Your task to perform on an android device: Open the calendar and show me this week's events? Image 0: 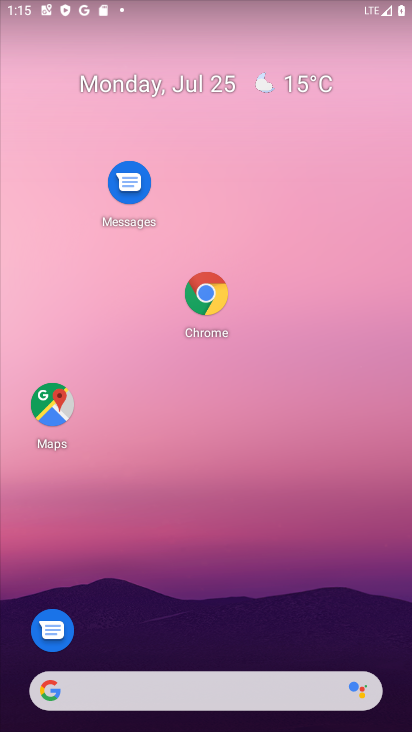
Step 0: drag from (296, 571) to (245, 0)
Your task to perform on an android device: Open the calendar and show me this week's events? Image 1: 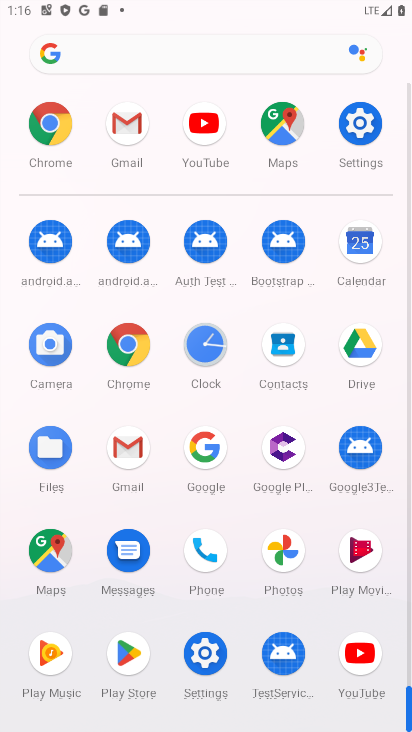
Step 1: click (364, 234)
Your task to perform on an android device: Open the calendar and show me this week's events? Image 2: 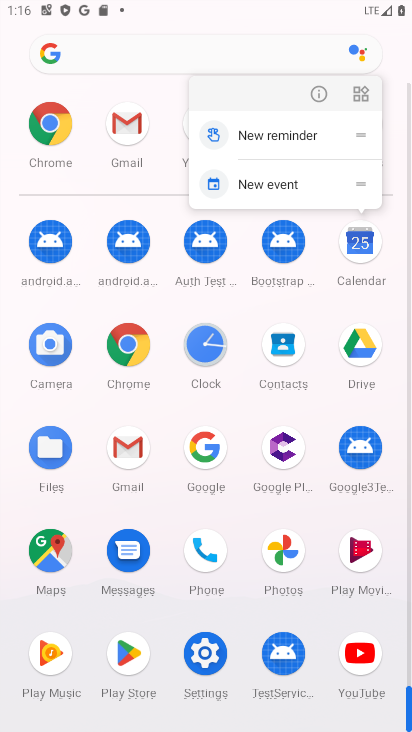
Step 2: click (371, 243)
Your task to perform on an android device: Open the calendar and show me this week's events? Image 3: 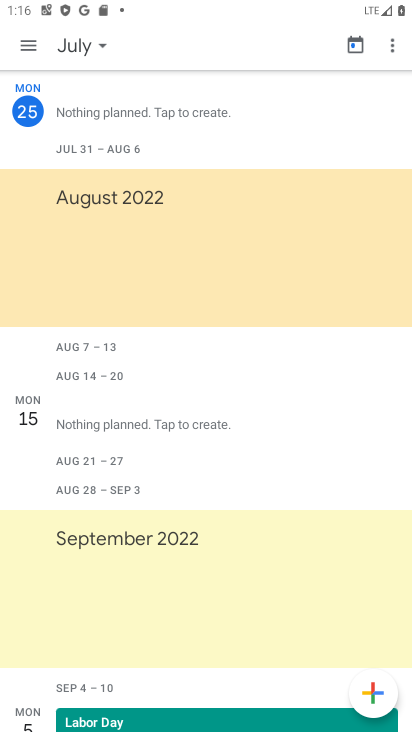
Step 3: click (91, 33)
Your task to perform on an android device: Open the calendar and show me this week's events? Image 4: 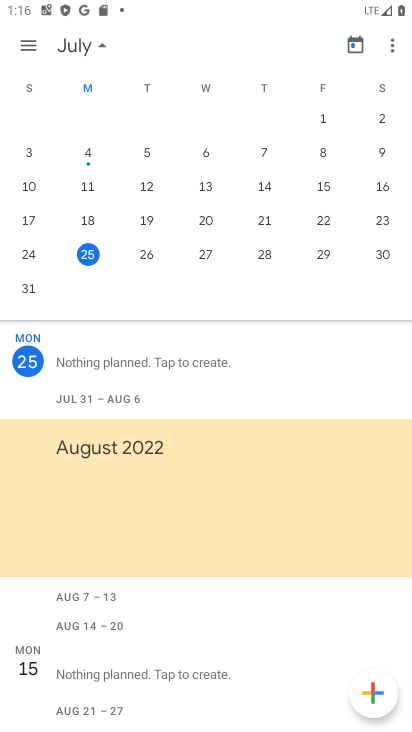
Step 4: click (13, 295)
Your task to perform on an android device: Open the calendar and show me this week's events? Image 5: 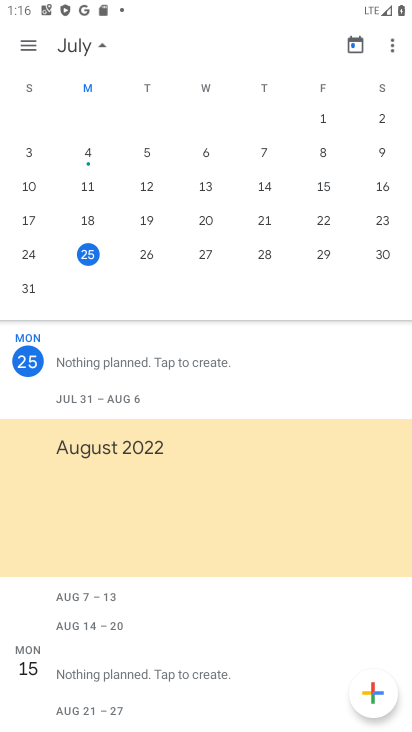
Step 5: click (26, 292)
Your task to perform on an android device: Open the calendar and show me this week's events? Image 6: 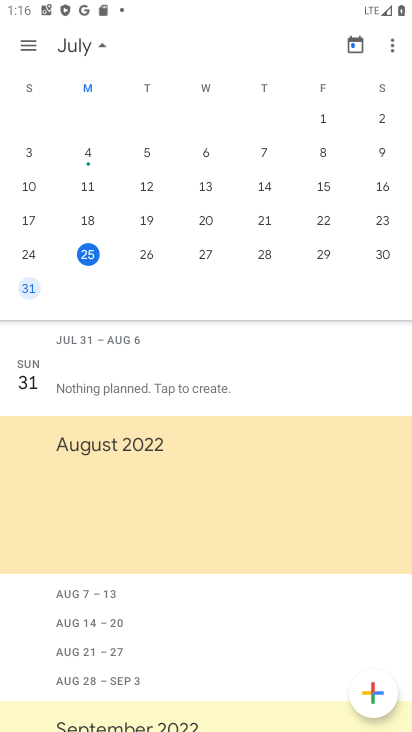
Step 6: click (103, 43)
Your task to perform on an android device: Open the calendar and show me this week's events? Image 7: 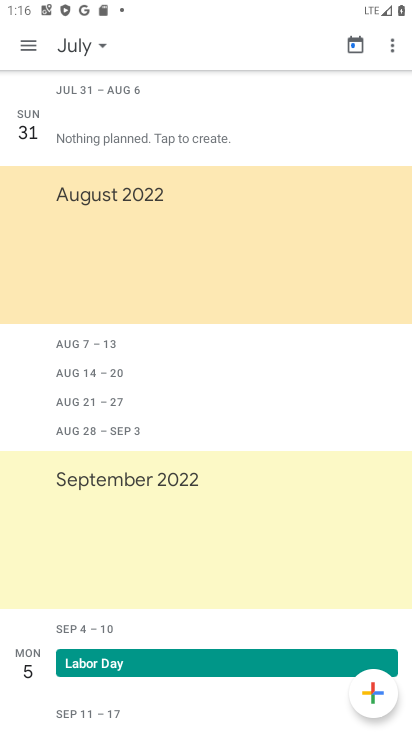
Step 7: task complete